Your task to perform on an android device: toggle translation in the chrome app Image 0: 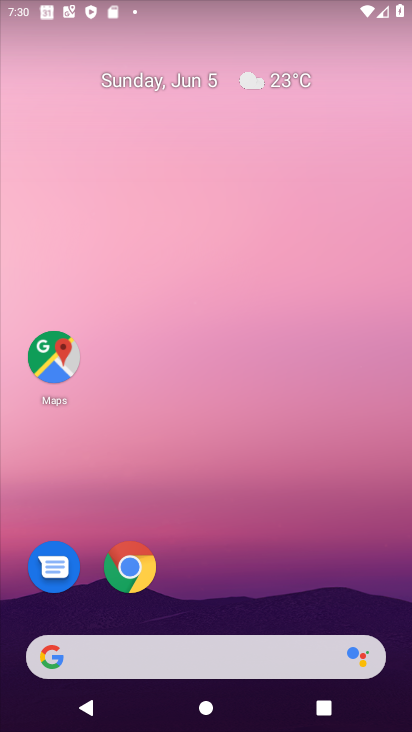
Step 0: drag from (390, 613) to (31, 134)
Your task to perform on an android device: toggle translation in the chrome app Image 1: 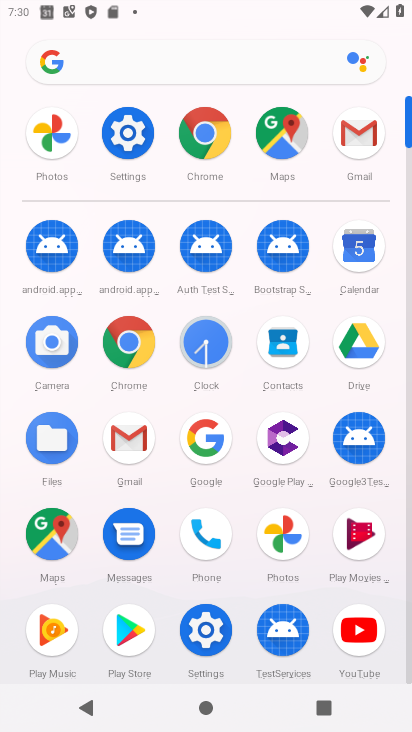
Step 1: click (125, 342)
Your task to perform on an android device: toggle translation in the chrome app Image 2: 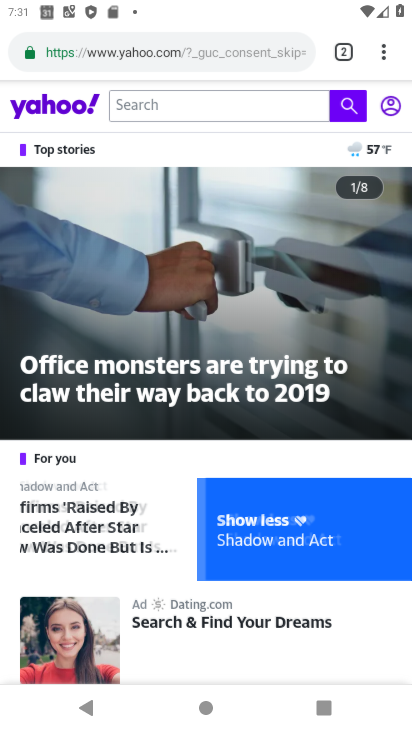
Step 2: press back button
Your task to perform on an android device: toggle translation in the chrome app Image 3: 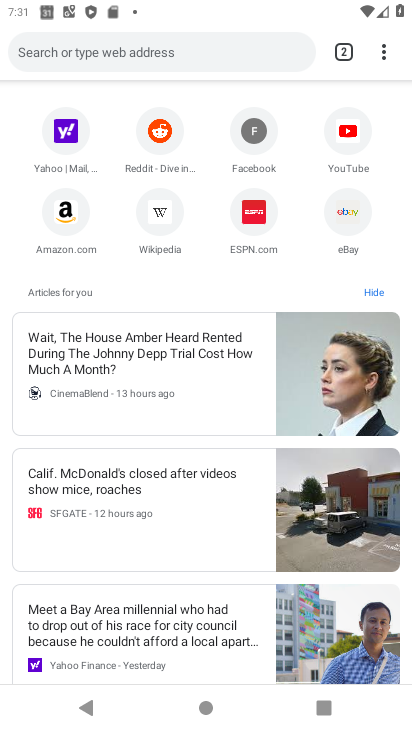
Step 3: click (385, 44)
Your task to perform on an android device: toggle translation in the chrome app Image 4: 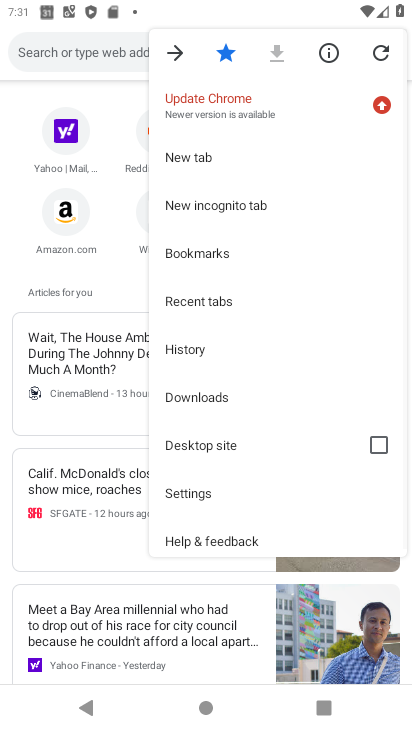
Step 4: click (201, 496)
Your task to perform on an android device: toggle translation in the chrome app Image 5: 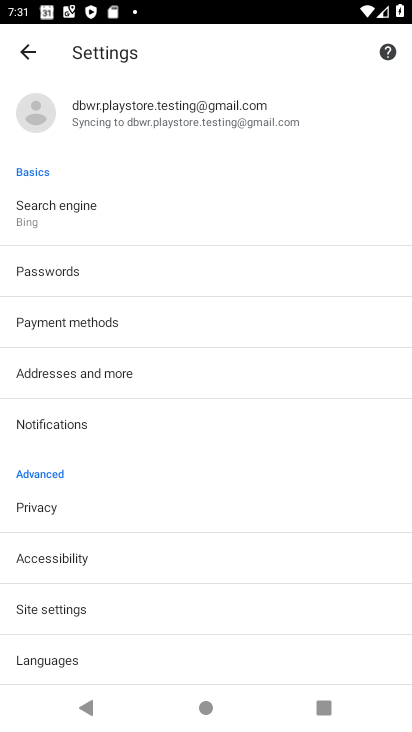
Step 5: click (95, 671)
Your task to perform on an android device: toggle translation in the chrome app Image 6: 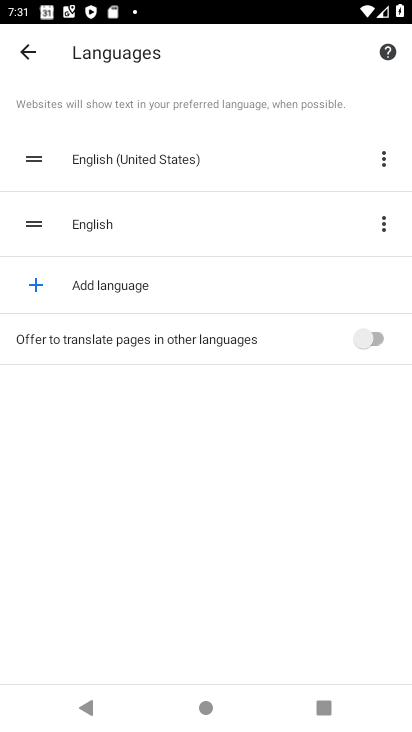
Step 6: click (333, 329)
Your task to perform on an android device: toggle translation in the chrome app Image 7: 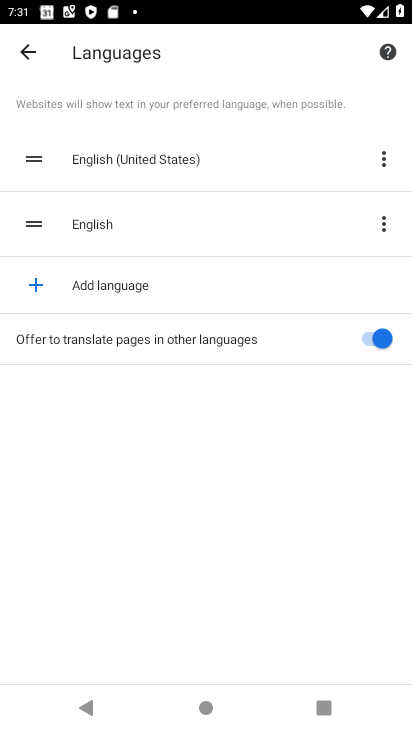
Step 7: task complete